Your task to perform on an android device: turn pop-ups on in chrome Image 0: 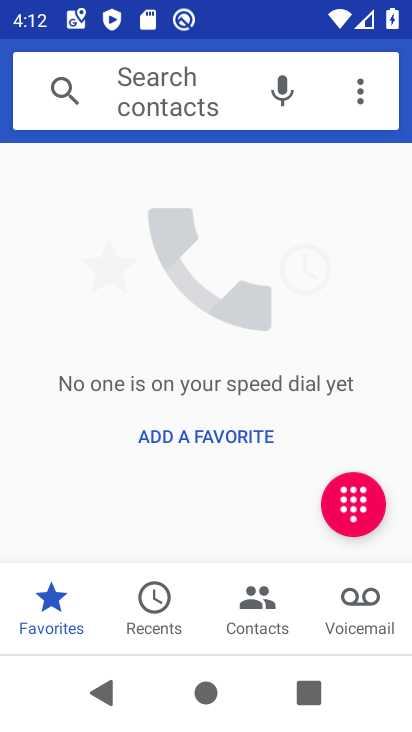
Step 0: press home button
Your task to perform on an android device: turn pop-ups on in chrome Image 1: 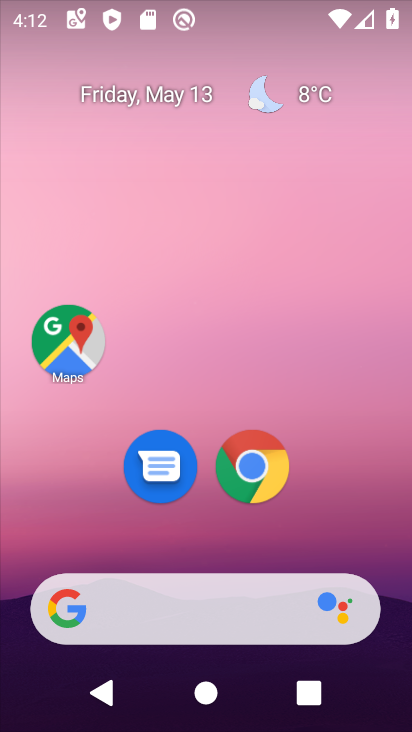
Step 1: click (253, 461)
Your task to perform on an android device: turn pop-ups on in chrome Image 2: 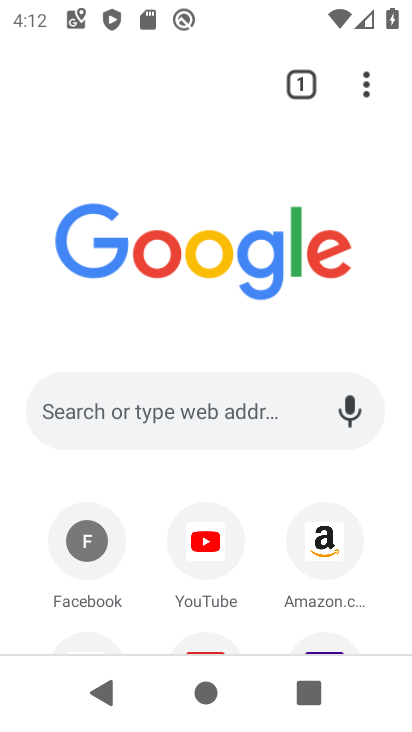
Step 2: click (361, 91)
Your task to perform on an android device: turn pop-ups on in chrome Image 3: 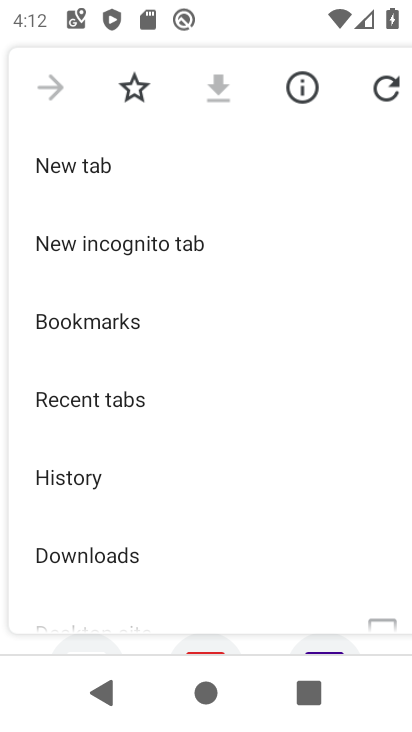
Step 3: drag from (193, 531) to (195, 230)
Your task to perform on an android device: turn pop-ups on in chrome Image 4: 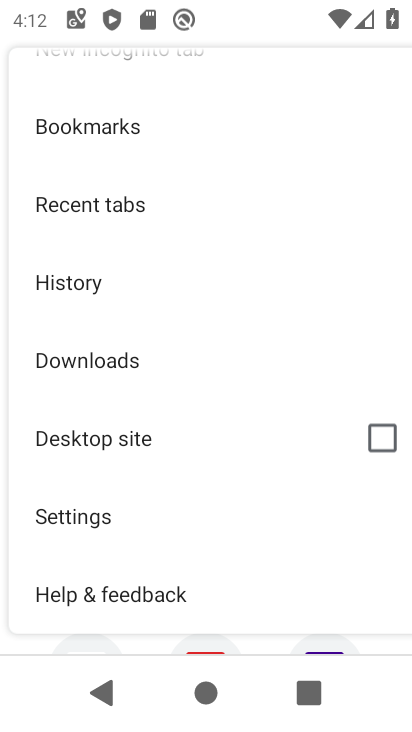
Step 4: click (89, 521)
Your task to perform on an android device: turn pop-ups on in chrome Image 5: 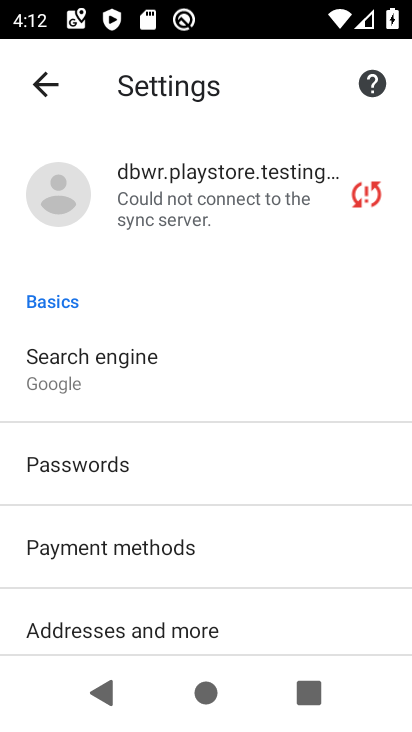
Step 5: drag from (252, 611) to (211, 194)
Your task to perform on an android device: turn pop-ups on in chrome Image 6: 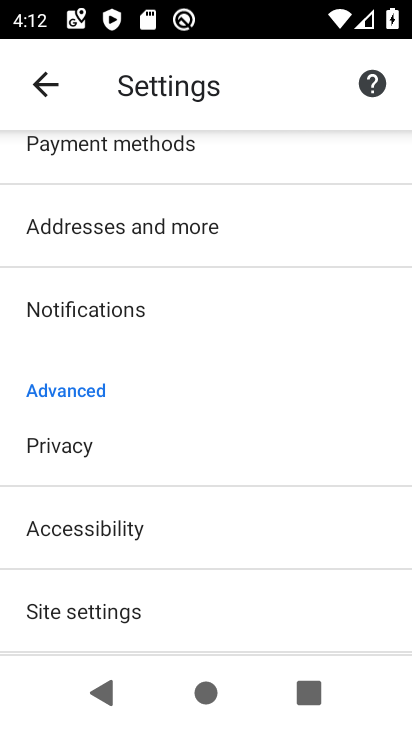
Step 6: drag from (183, 645) to (203, 360)
Your task to perform on an android device: turn pop-ups on in chrome Image 7: 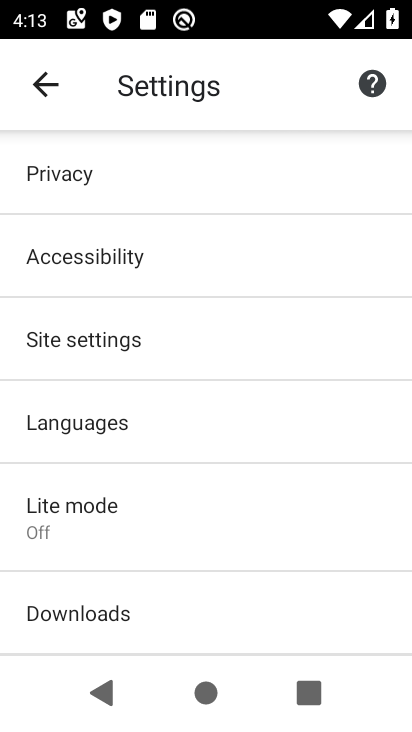
Step 7: click (74, 335)
Your task to perform on an android device: turn pop-ups on in chrome Image 8: 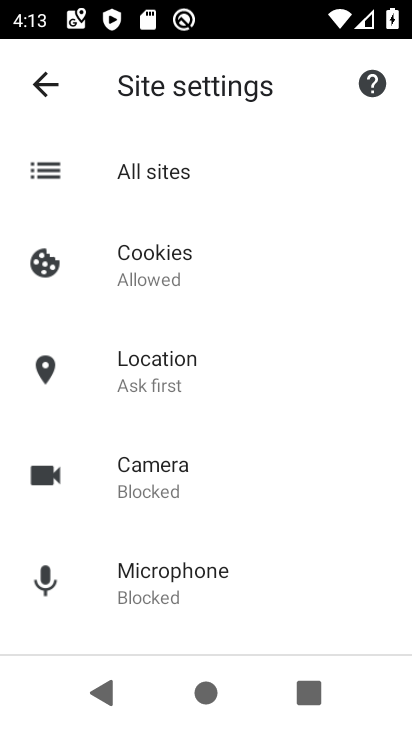
Step 8: drag from (264, 620) to (284, 197)
Your task to perform on an android device: turn pop-ups on in chrome Image 9: 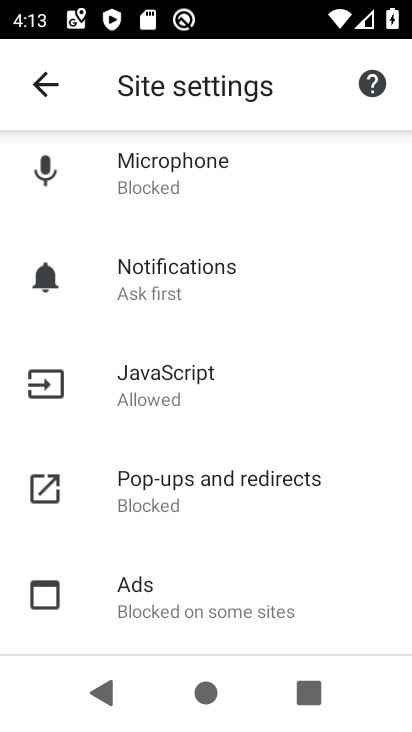
Step 9: click (159, 486)
Your task to perform on an android device: turn pop-ups on in chrome Image 10: 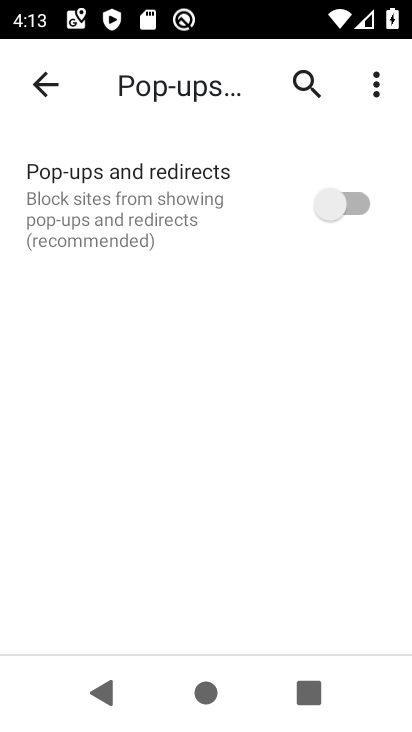
Step 10: click (355, 194)
Your task to perform on an android device: turn pop-ups on in chrome Image 11: 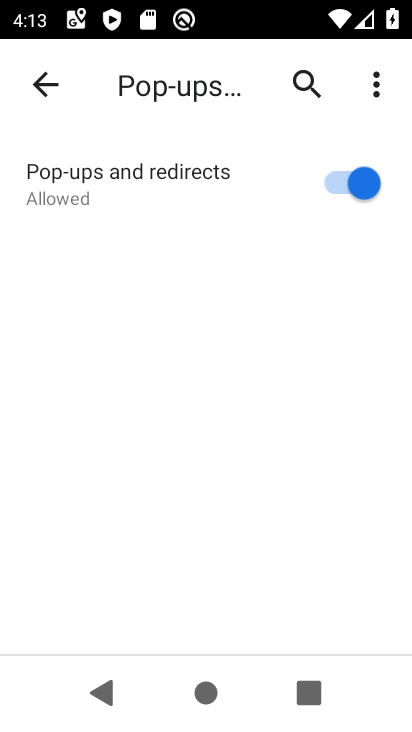
Step 11: task complete